Your task to perform on an android device: turn on improve location accuracy Image 0: 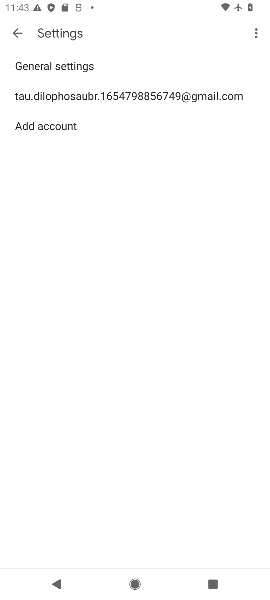
Step 0: press home button
Your task to perform on an android device: turn on improve location accuracy Image 1: 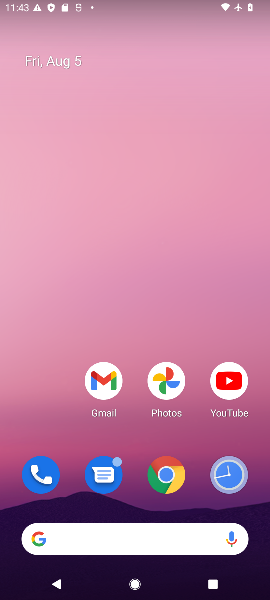
Step 1: drag from (142, 509) to (179, 3)
Your task to perform on an android device: turn on improve location accuracy Image 2: 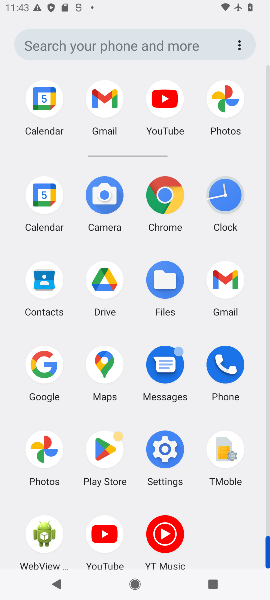
Step 2: click (157, 466)
Your task to perform on an android device: turn on improve location accuracy Image 3: 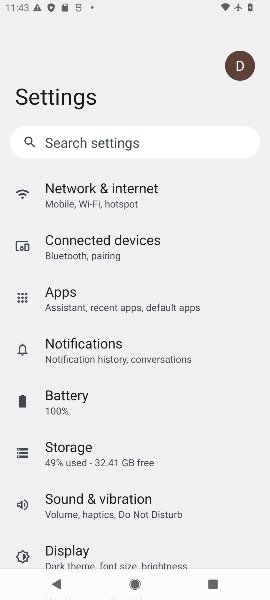
Step 3: drag from (75, 535) to (118, 341)
Your task to perform on an android device: turn on improve location accuracy Image 4: 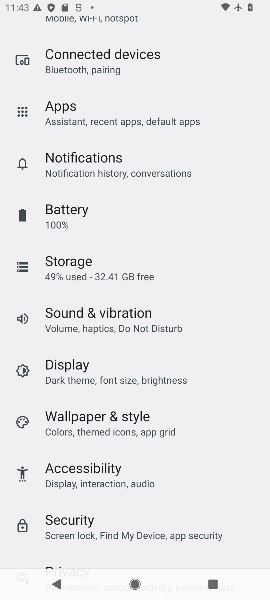
Step 4: drag from (118, 463) to (135, 317)
Your task to perform on an android device: turn on improve location accuracy Image 5: 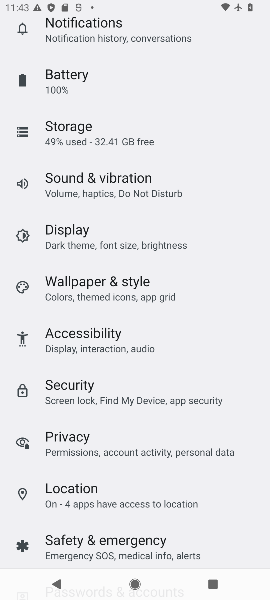
Step 5: click (80, 500)
Your task to perform on an android device: turn on improve location accuracy Image 6: 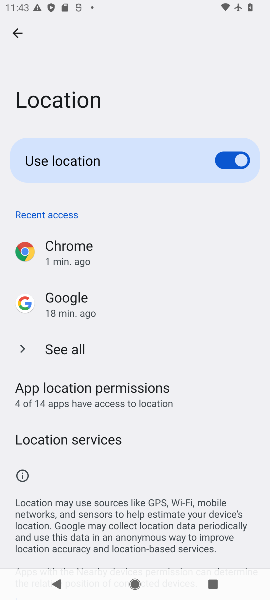
Step 6: click (103, 441)
Your task to perform on an android device: turn on improve location accuracy Image 7: 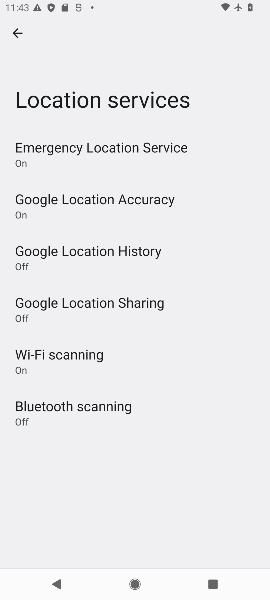
Step 7: click (131, 197)
Your task to perform on an android device: turn on improve location accuracy Image 8: 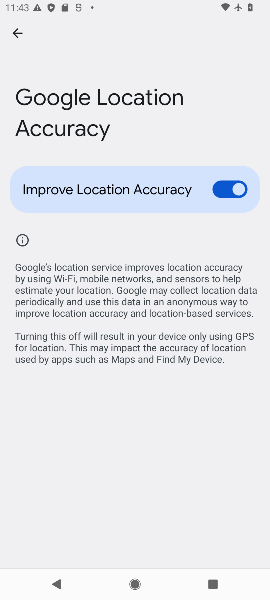
Step 8: task complete